Your task to perform on an android device: Open battery settings Image 0: 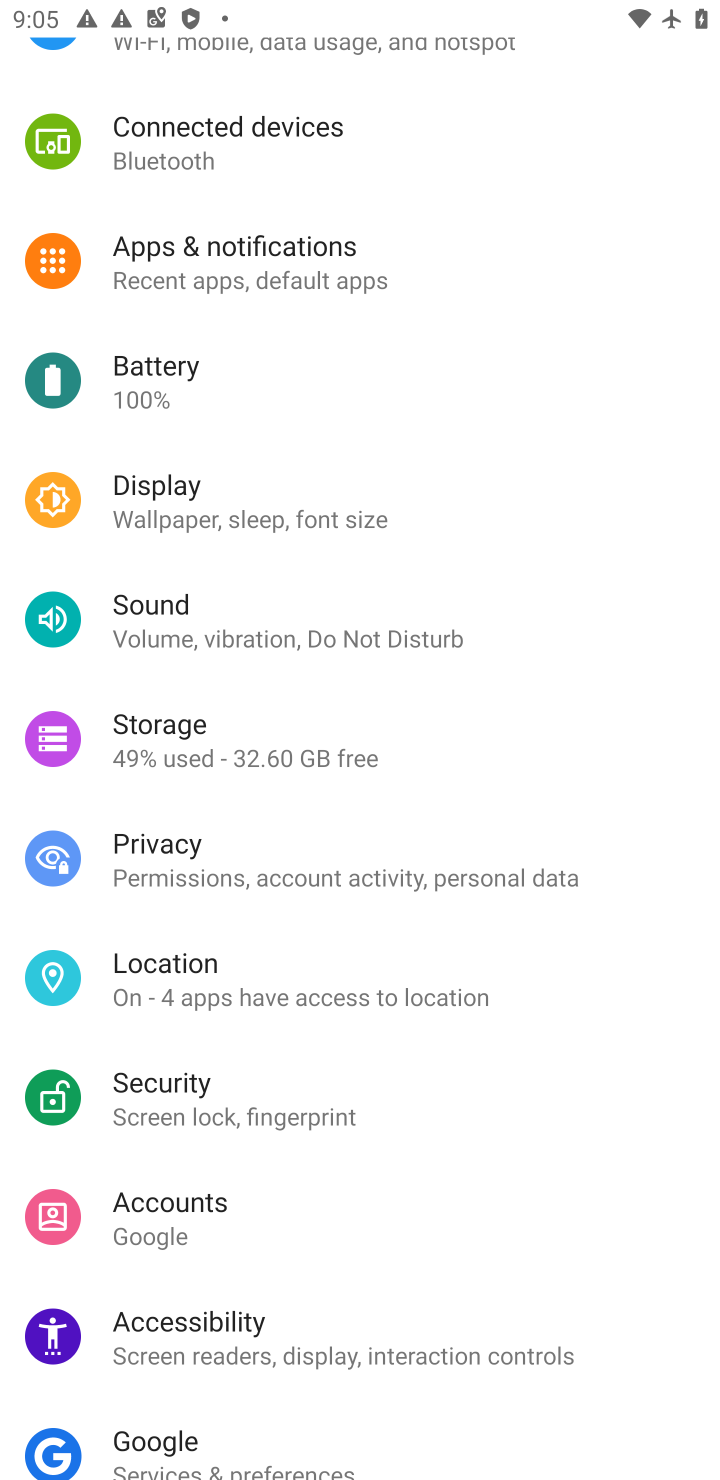
Step 0: click (212, 385)
Your task to perform on an android device: Open battery settings Image 1: 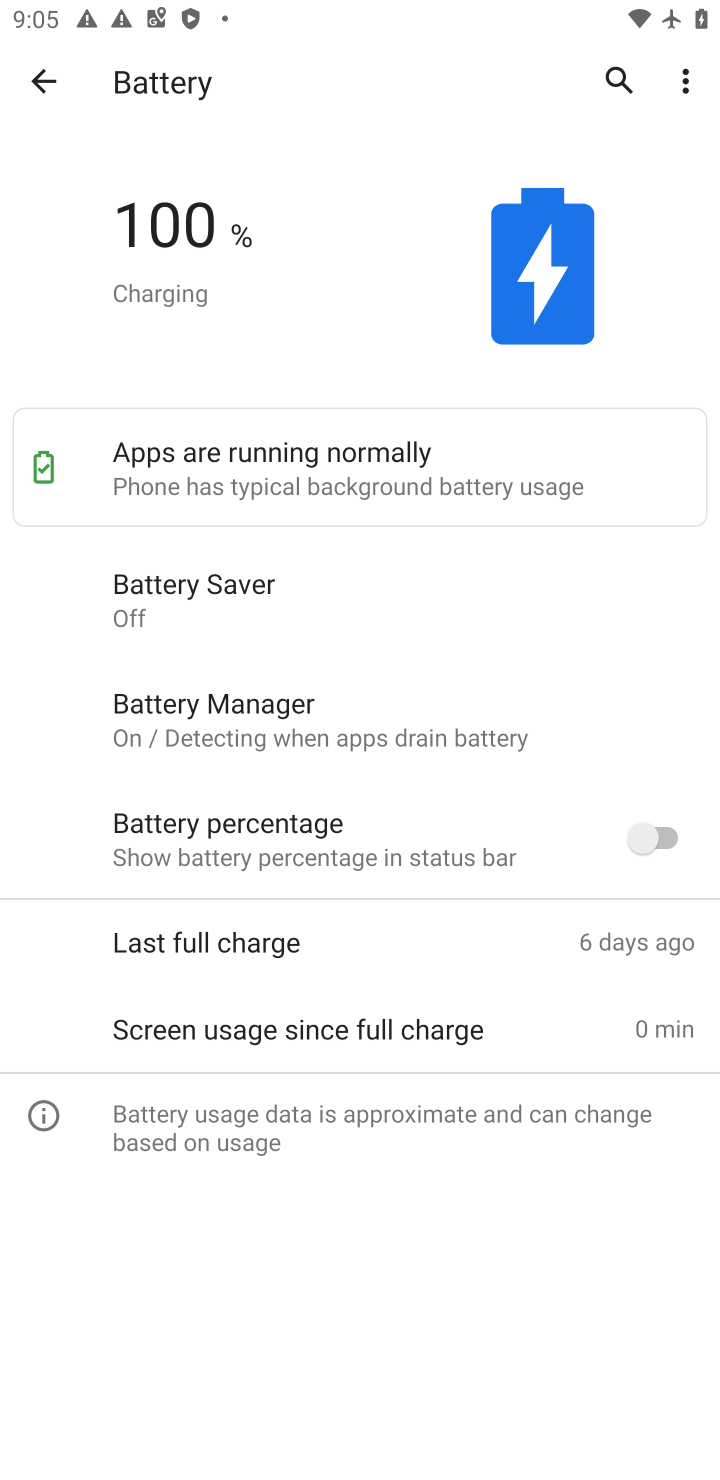
Step 1: task complete